Your task to perform on an android device: Open Google Chrome and open the bookmarks view Image 0: 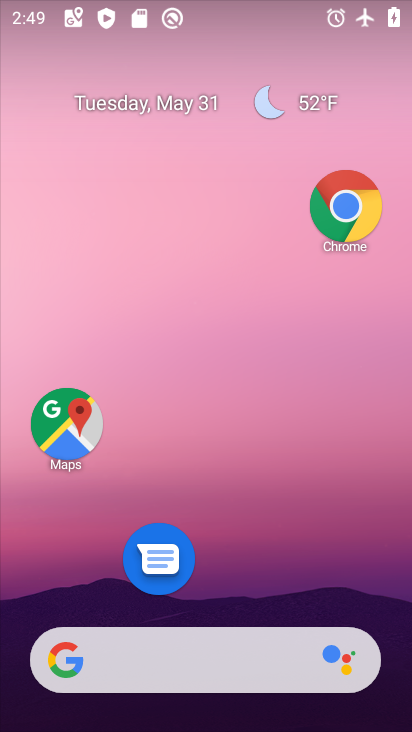
Step 0: drag from (266, 597) to (211, 154)
Your task to perform on an android device: Open Google Chrome and open the bookmarks view Image 1: 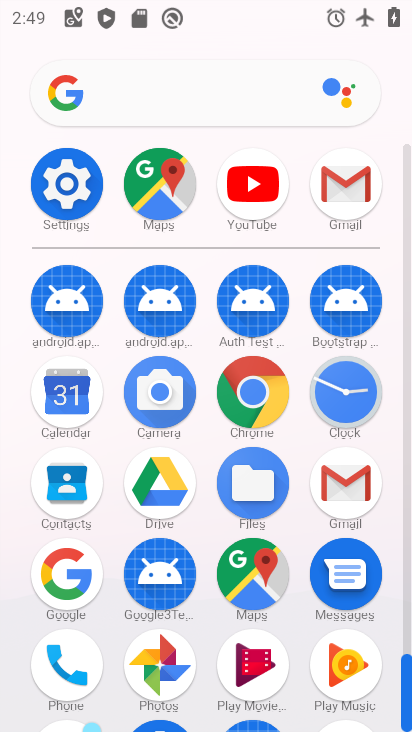
Step 1: click (259, 413)
Your task to perform on an android device: Open Google Chrome and open the bookmarks view Image 2: 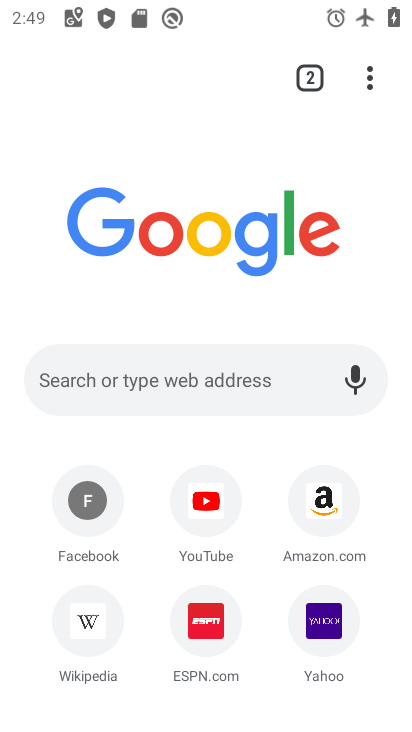
Step 2: click (372, 82)
Your task to perform on an android device: Open Google Chrome and open the bookmarks view Image 3: 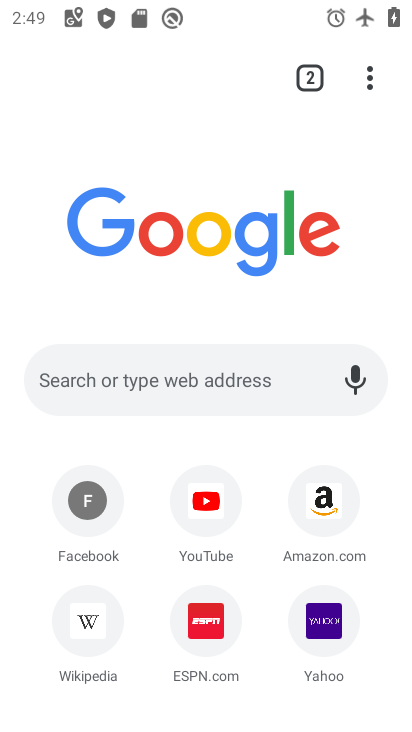
Step 3: click (377, 78)
Your task to perform on an android device: Open Google Chrome and open the bookmarks view Image 4: 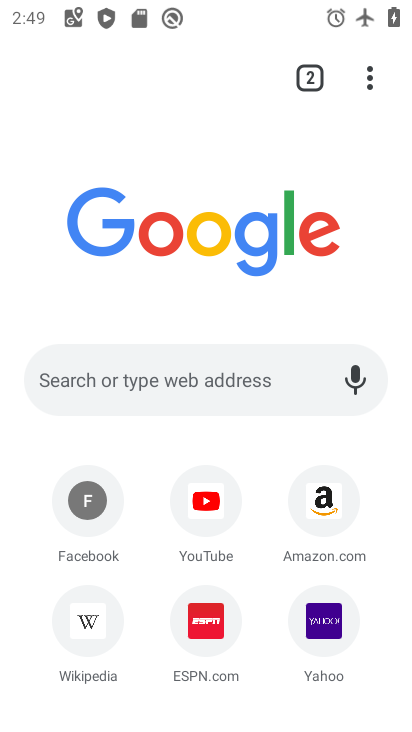
Step 4: click (375, 85)
Your task to perform on an android device: Open Google Chrome and open the bookmarks view Image 5: 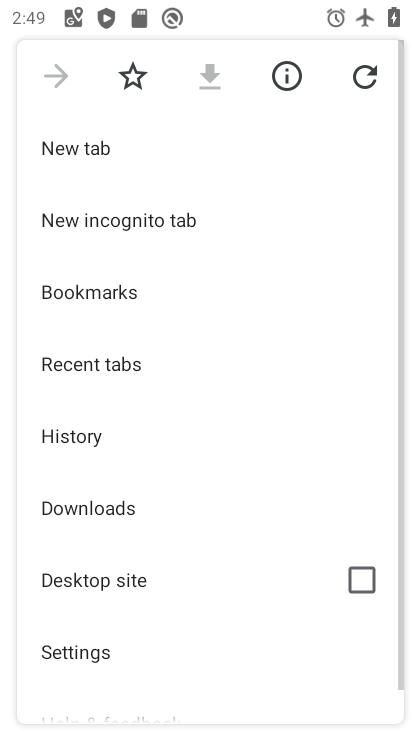
Step 5: click (176, 312)
Your task to perform on an android device: Open Google Chrome and open the bookmarks view Image 6: 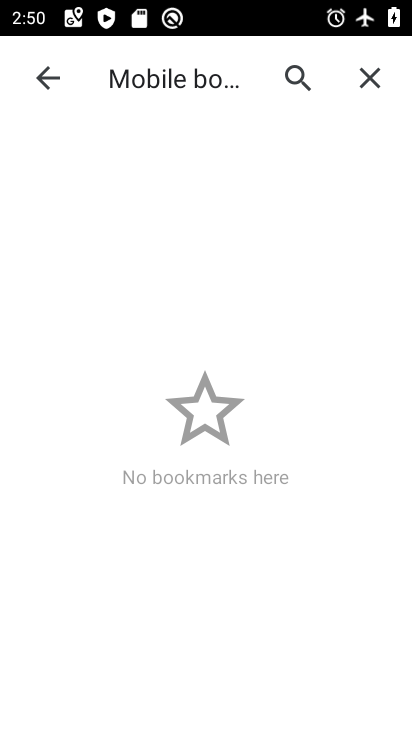
Step 6: task complete